Your task to perform on an android device: Clear the cart on amazon.com. Search for usb-c on amazon.com, select the first entry, add it to the cart, then select checkout. Image 0: 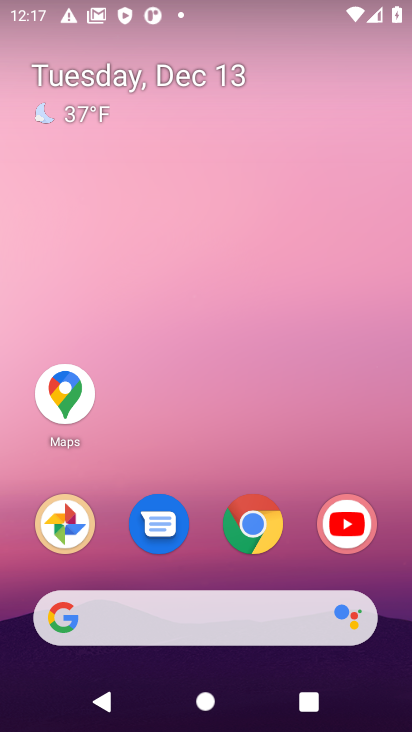
Step 0: click (251, 521)
Your task to perform on an android device: Clear the cart on amazon.com. Search for usb-c on amazon.com, select the first entry, add it to the cart, then select checkout. Image 1: 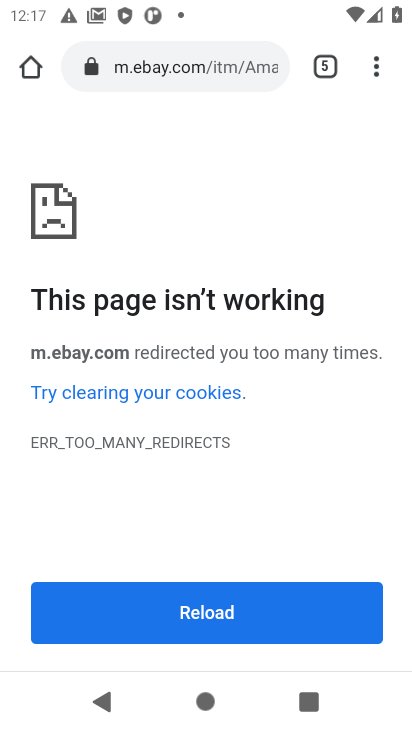
Step 1: click (169, 70)
Your task to perform on an android device: Clear the cart on amazon.com. Search for usb-c on amazon.com, select the first entry, add it to the cart, then select checkout. Image 2: 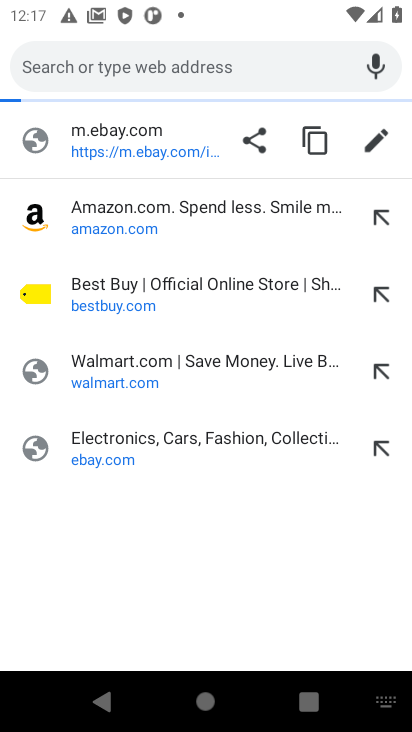
Step 2: click (92, 226)
Your task to perform on an android device: Clear the cart on amazon.com. Search for usb-c on amazon.com, select the first entry, add it to the cart, then select checkout. Image 3: 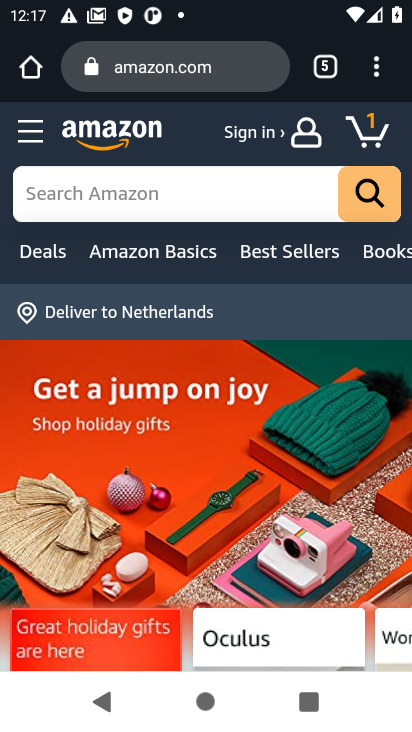
Step 3: click (369, 138)
Your task to perform on an android device: Clear the cart on amazon.com. Search for usb-c on amazon.com, select the first entry, add it to the cart, then select checkout. Image 4: 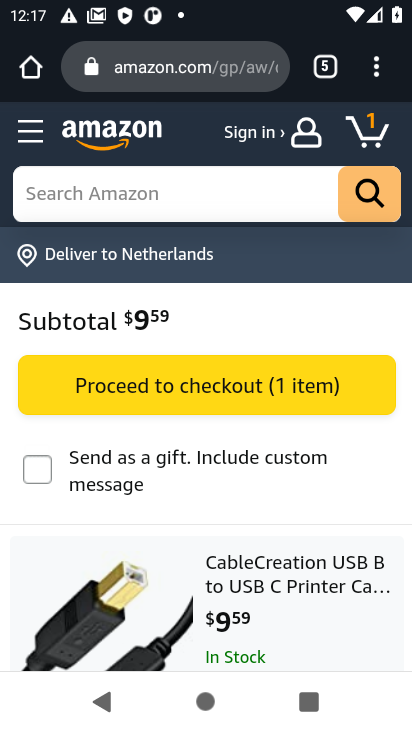
Step 4: drag from (204, 509) to (206, 292)
Your task to perform on an android device: Clear the cart on amazon.com. Search for usb-c on amazon.com, select the first entry, add it to the cart, then select checkout. Image 5: 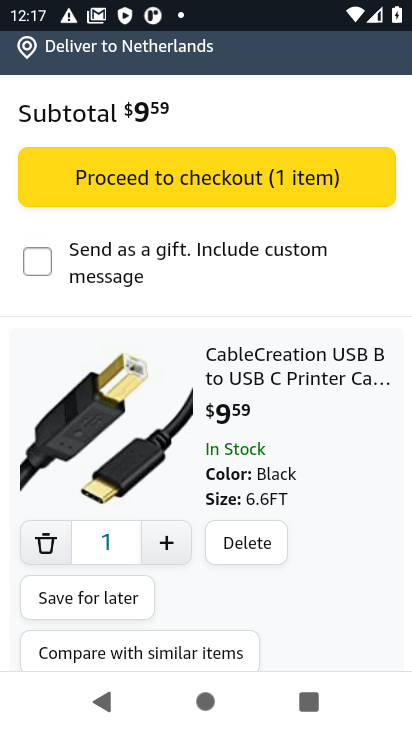
Step 5: click (246, 538)
Your task to perform on an android device: Clear the cart on amazon.com. Search for usb-c on amazon.com, select the first entry, add it to the cart, then select checkout. Image 6: 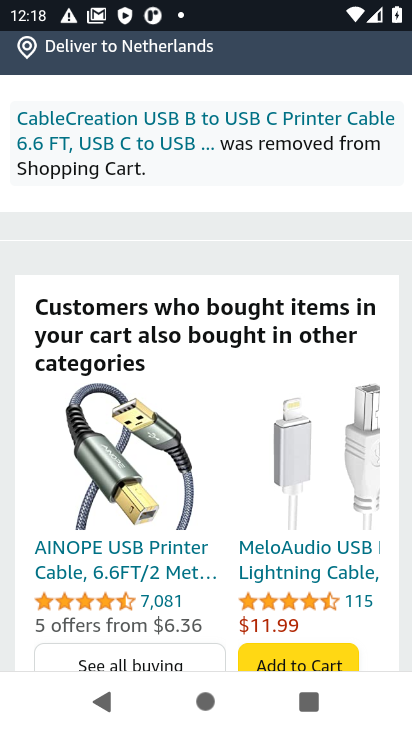
Step 6: drag from (204, 289) to (207, 630)
Your task to perform on an android device: Clear the cart on amazon.com. Search for usb-c on amazon.com, select the first entry, add it to the cart, then select checkout. Image 7: 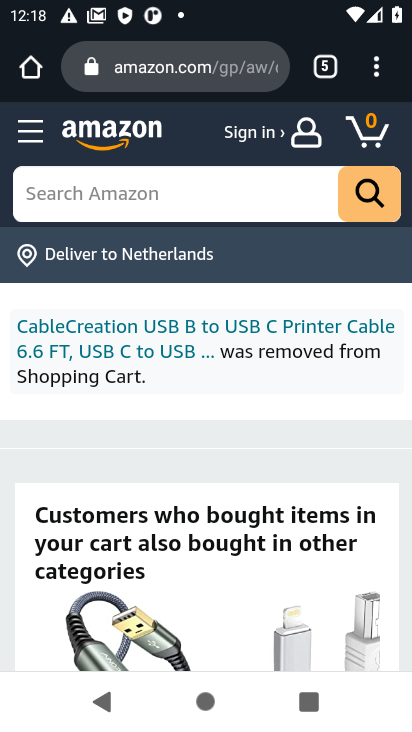
Step 7: click (106, 203)
Your task to perform on an android device: Clear the cart on amazon.com. Search for usb-c on amazon.com, select the first entry, add it to the cart, then select checkout. Image 8: 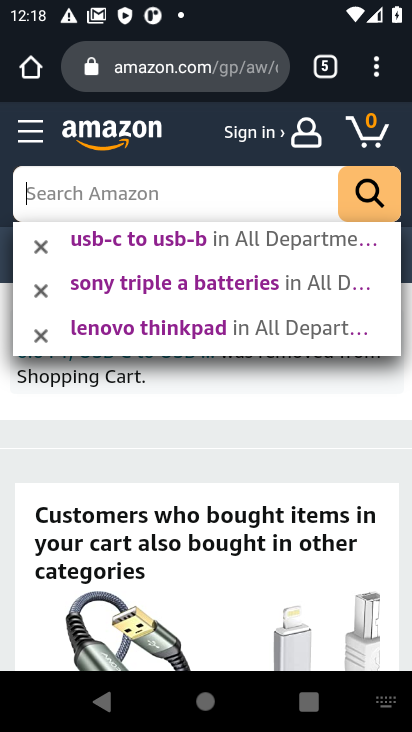
Step 8: type "usb-c"
Your task to perform on an android device: Clear the cart on amazon.com. Search for usb-c on amazon.com, select the first entry, add it to the cart, then select checkout. Image 9: 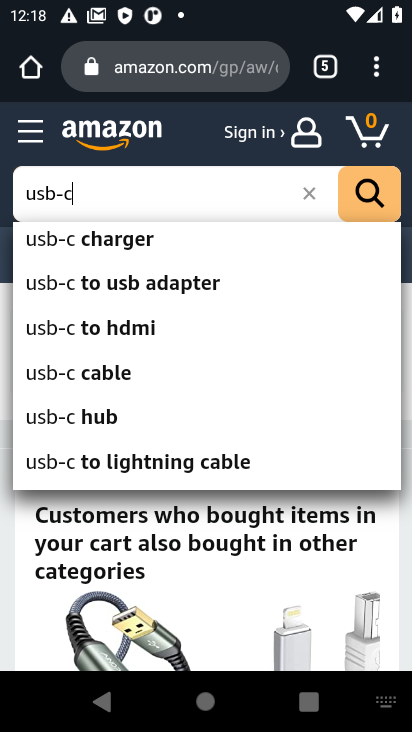
Step 9: click (360, 195)
Your task to perform on an android device: Clear the cart on amazon.com. Search for usb-c on amazon.com, select the first entry, add it to the cart, then select checkout. Image 10: 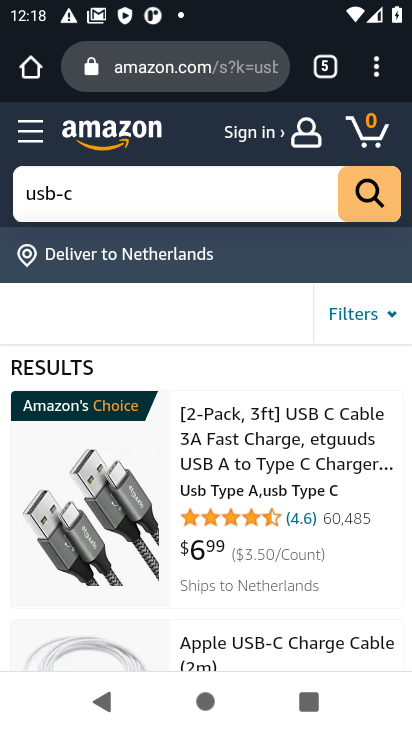
Step 10: drag from (230, 546) to (255, 417)
Your task to perform on an android device: Clear the cart on amazon.com. Search for usb-c on amazon.com, select the first entry, add it to the cart, then select checkout. Image 11: 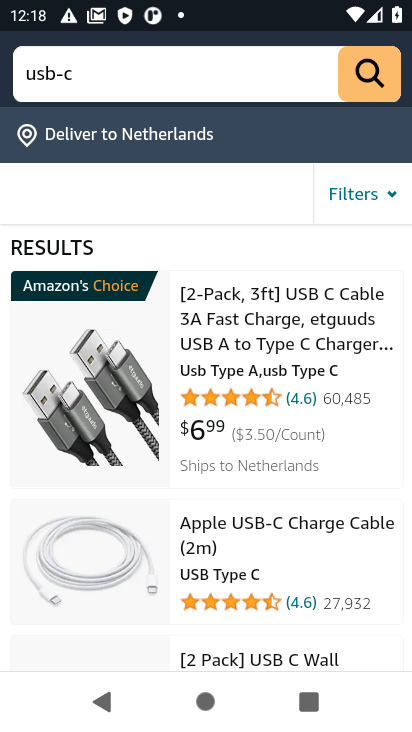
Step 11: click (255, 344)
Your task to perform on an android device: Clear the cart on amazon.com. Search for usb-c on amazon.com, select the first entry, add it to the cart, then select checkout. Image 12: 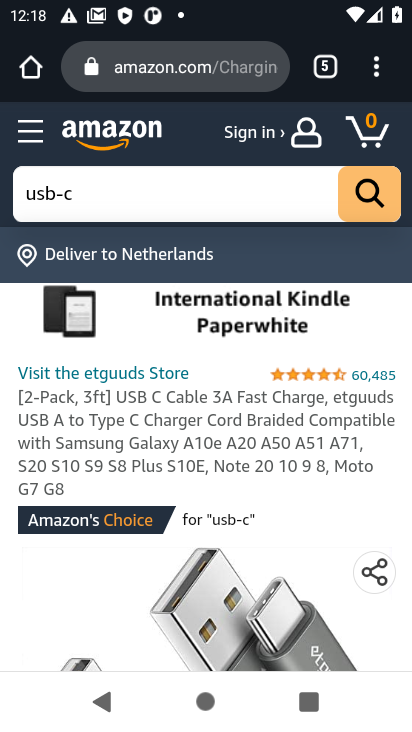
Step 12: drag from (282, 533) to (295, 210)
Your task to perform on an android device: Clear the cart on amazon.com. Search for usb-c on amazon.com, select the first entry, add it to the cart, then select checkout. Image 13: 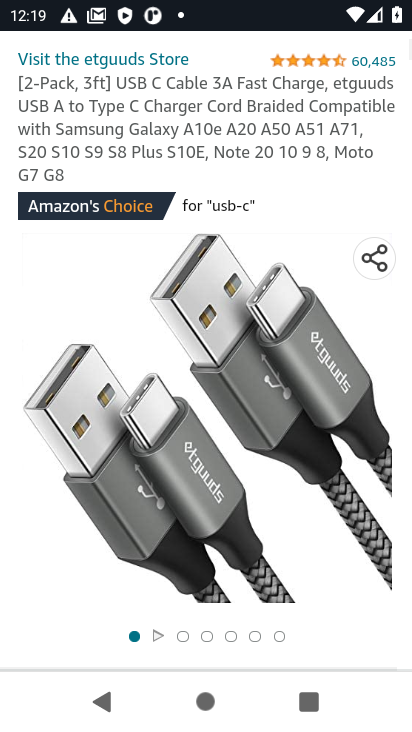
Step 13: drag from (246, 539) to (241, 169)
Your task to perform on an android device: Clear the cart on amazon.com. Search for usb-c on amazon.com, select the first entry, add it to the cart, then select checkout. Image 14: 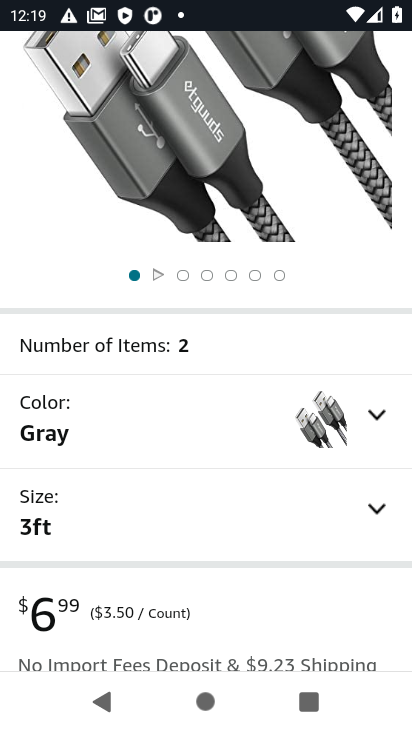
Step 14: drag from (162, 476) to (188, 182)
Your task to perform on an android device: Clear the cart on amazon.com. Search for usb-c on amazon.com, select the first entry, add it to the cart, then select checkout. Image 15: 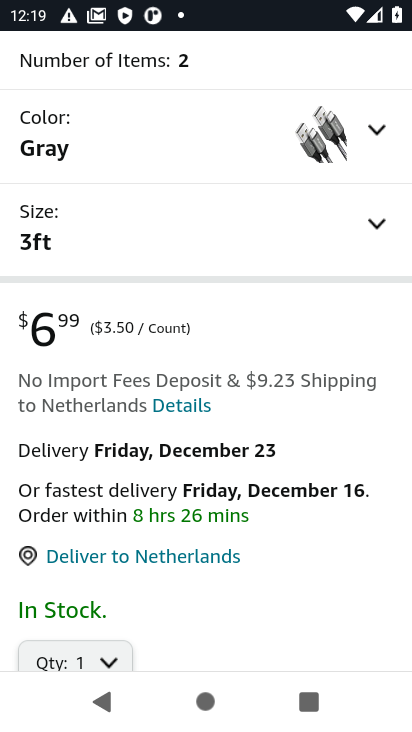
Step 15: drag from (161, 549) to (177, 281)
Your task to perform on an android device: Clear the cart on amazon.com. Search for usb-c on amazon.com, select the first entry, add it to the cart, then select checkout. Image 16: 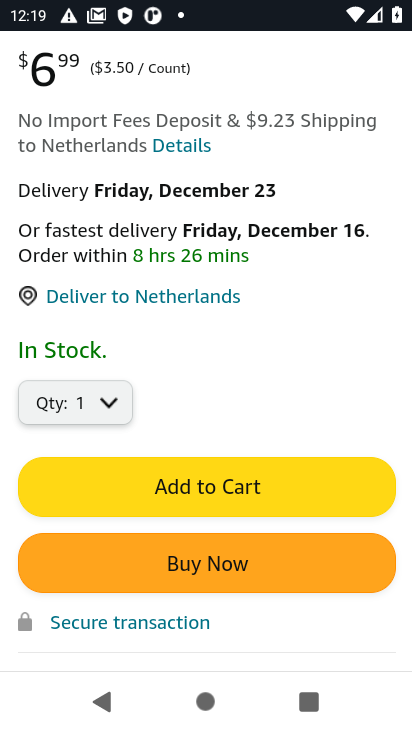
Step 16: click (189, 485)
Your task to perform on an android device: Clear the cart on amazon.com. Search for usb-c on amazon.com, select the first entry, add it to the cart, then select checkout. Image 17: 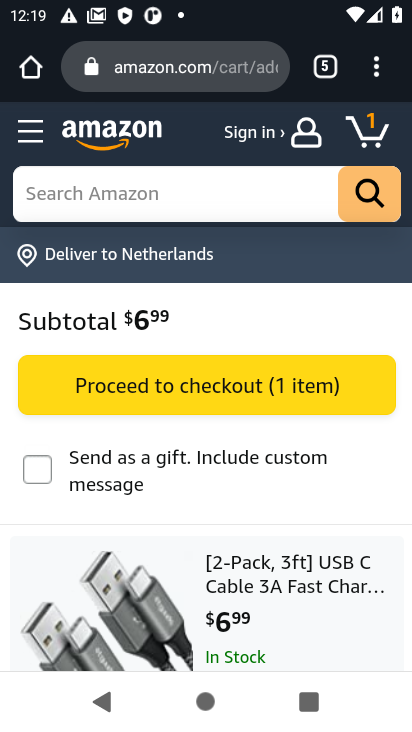
Step 17: click (192, 386)
Your task to perform on an android device: Clear the cart on amazon.com. Search for usb-c on amazon.com, select the first entry, add it to the cart, then select checkout. Image 18: 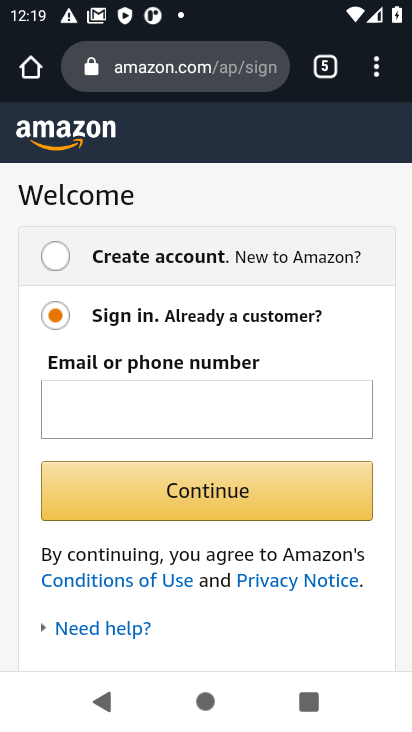
Step 18: task complete